Your task to perform on an android device: Go to notification settings Image 0: 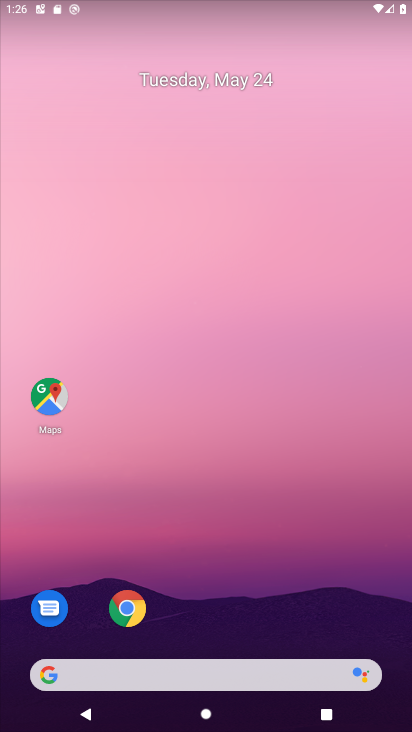
Step 0: drag from (346, 592) to (260, 74)
Your task to perform on an android device: Go to notification settings Image 1: 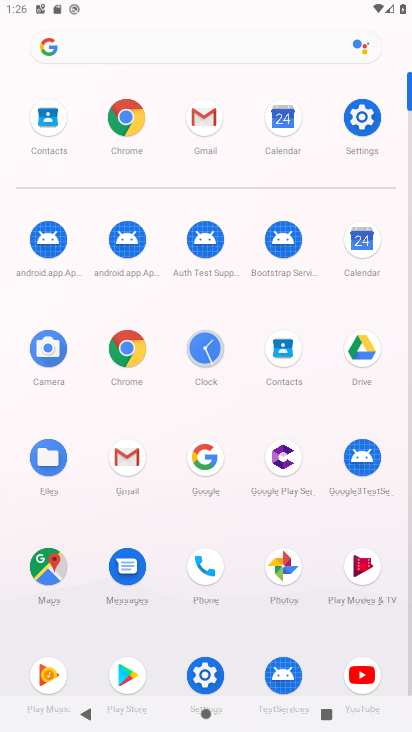
Step 1: click (370, 120)
Your task to perform on an android device: Go to notification settings Image 2: 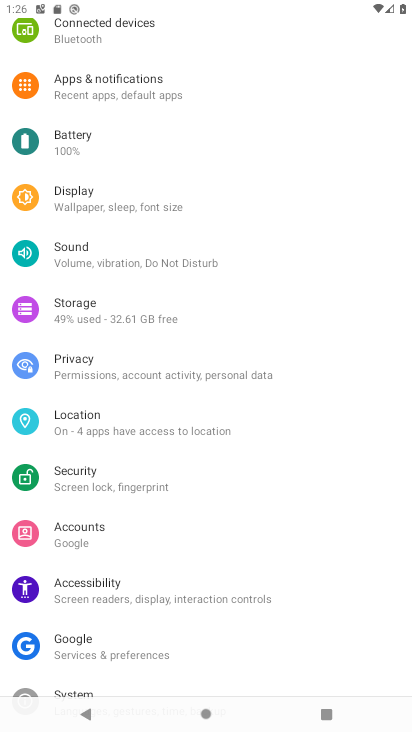
Step 2: click (153, 97)
Your task to perform on an android device: Go to notification settings Image 3: 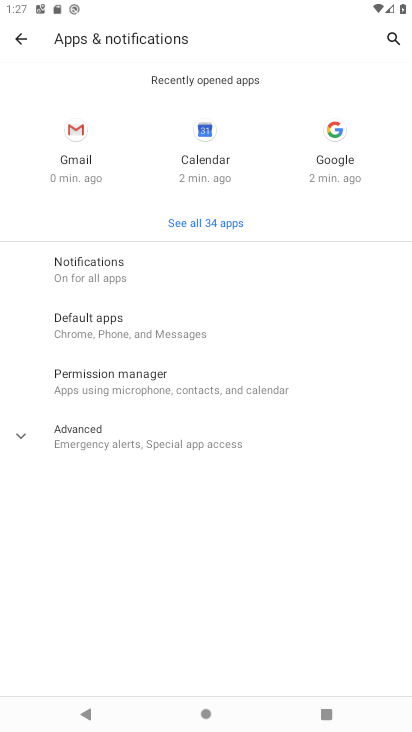
Step 3: task complete